Your task to perform on an android device: Show me productivity apps on the Play Store Image 0: 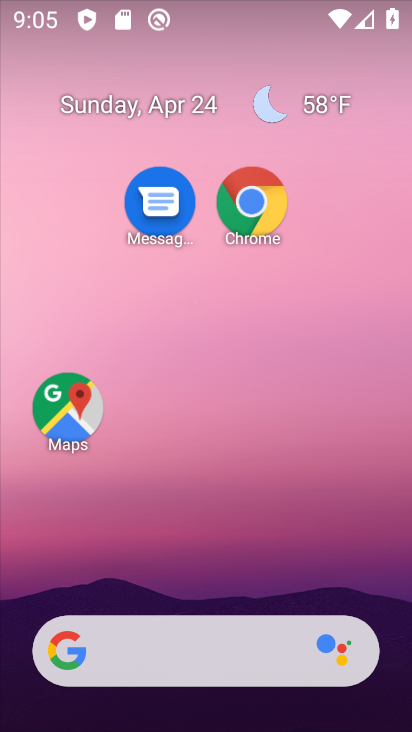
Step 0: drag from (212, 727) to (211, 64)
Your task to perform on an android device: Show me productivity apps on the Play Store Image 1: 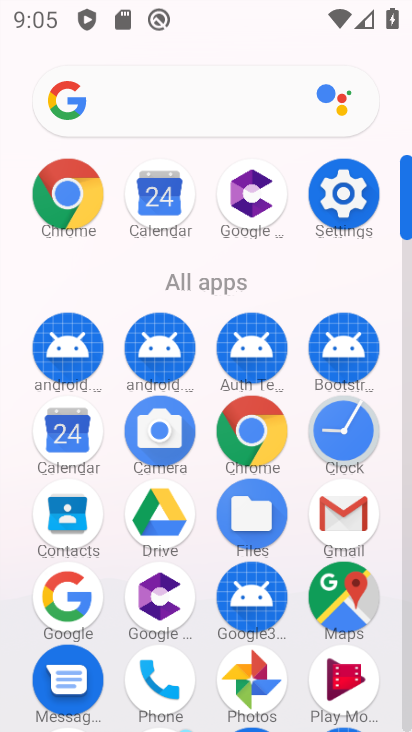
Step 1: drag from (110, 673) to (106, 334)
Your task to perform on an android device: Show me productivity apps on the Play Store Image 2: 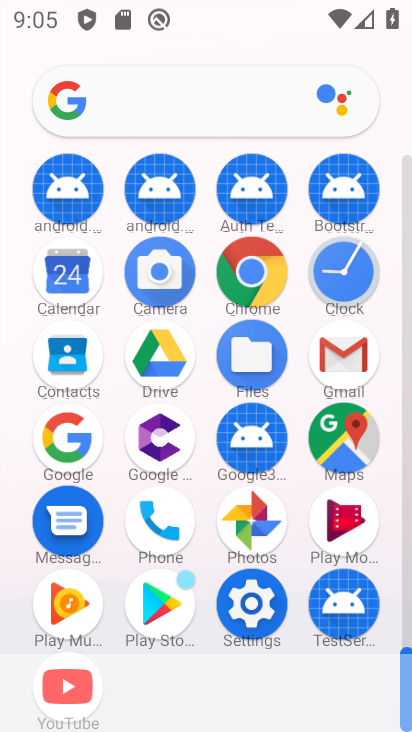
Step 2: click (156, 611)
Your task to perform on an android device: Show me productivity apps on the Play Store Image 3: 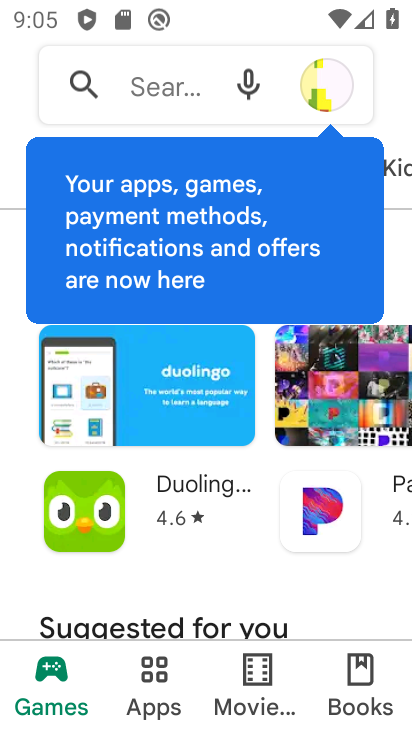
Step 3: click (155, 675)
Your task to perform on an android device: Show me productivity apps on the Play Store Image 4: 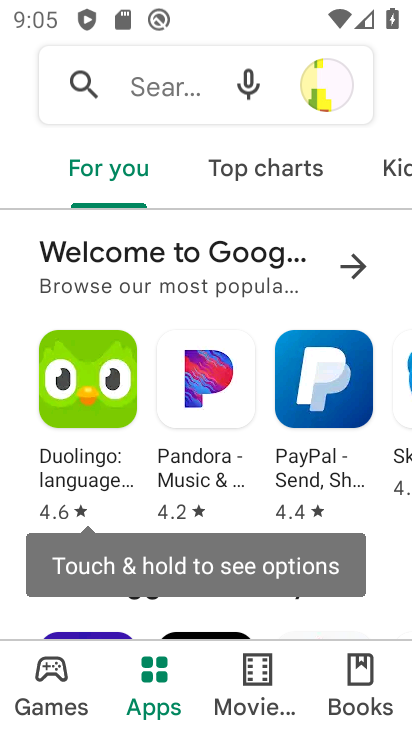
Step 4: drag from (319, 171) to (1, 175)
Your task to perform on an android device: Show me productivity apps on the Play Store Image 5: 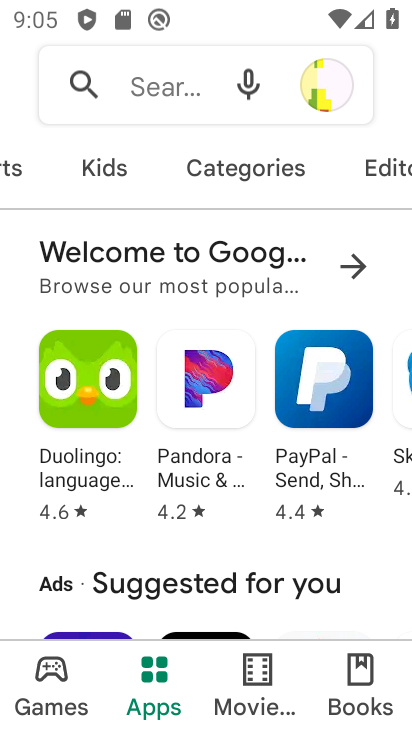
Step 5: click (246, 168)
Your task to perform on an android device: Show me productivity apps on the Play Store Image 6: 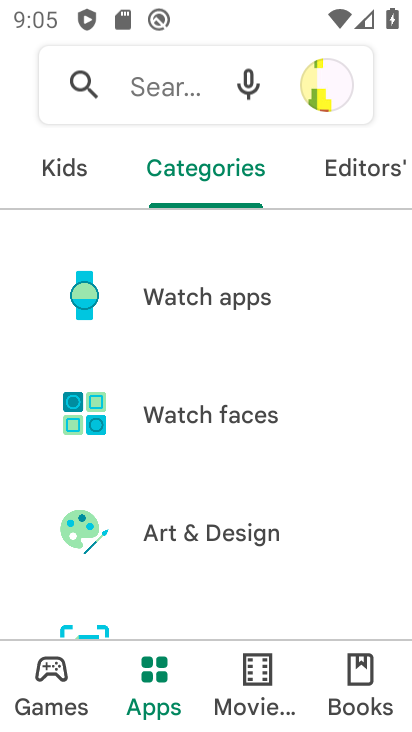
Step 6: drag from (230, 573) to (212, 265)
Your task to perform on an android device: Show me productivity apps on the Play Store Image 7: 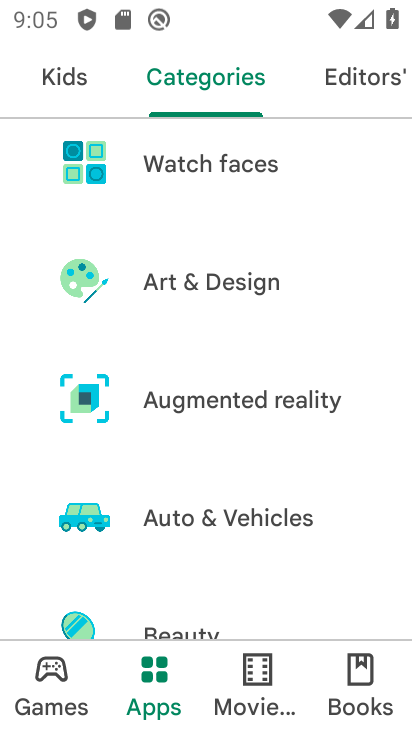
Step 7: drag from (243, 606) to (226, 293)
Your task to perform on an android device: Show me productivity apps on the Play Store Image 8: 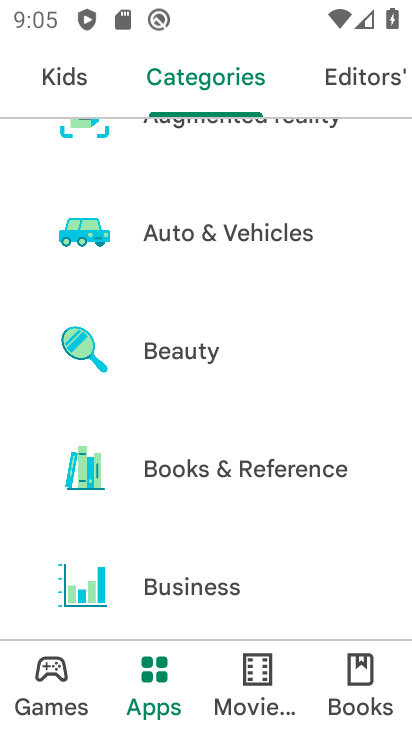
Step 8: drag from (227, 601) to (212, 115)
Your task to perform on an android device: Show me productivity apps on the Play Store Image 9: 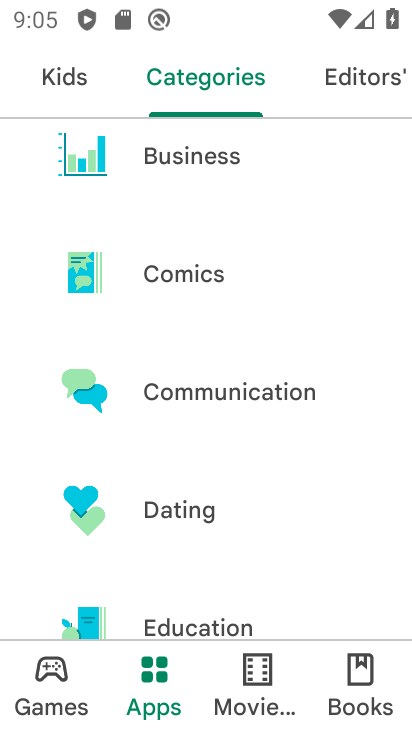
Step 9: drag from (233, 615) to (216, 216)
Your task to perform on an android device: Show me productivity apps on the Play Store Image 10: 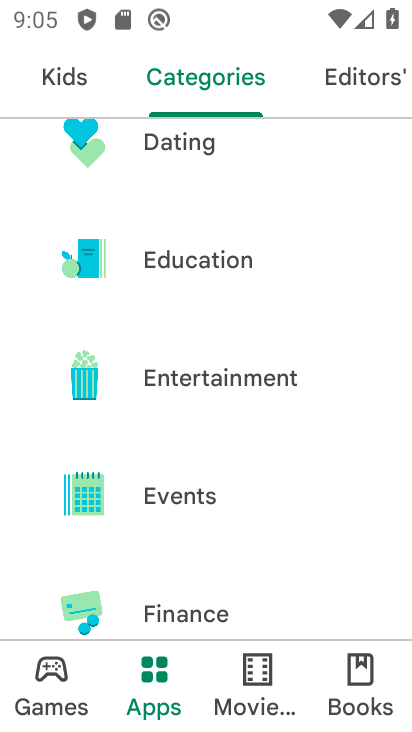
Step 10: drag from (213, 596) to (195, 179)
Your task to perform on an android device: Show me productivity apps on the Play Store Image 11: 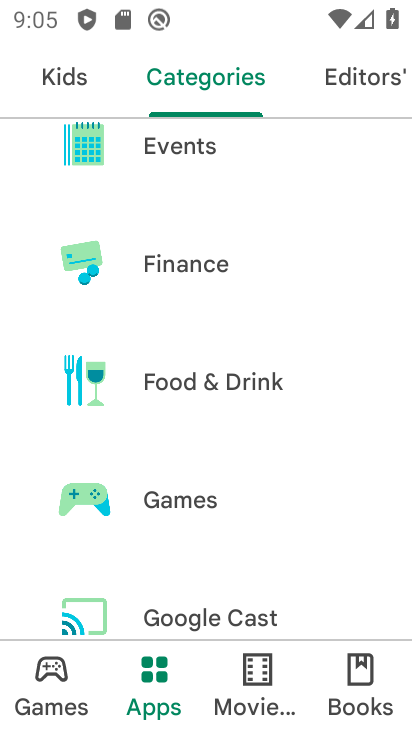
Step 11: drag from (206, 618) to (210, 205)
Your task to perform on an android device: Show me productivity apps on the Play Store Image 12: 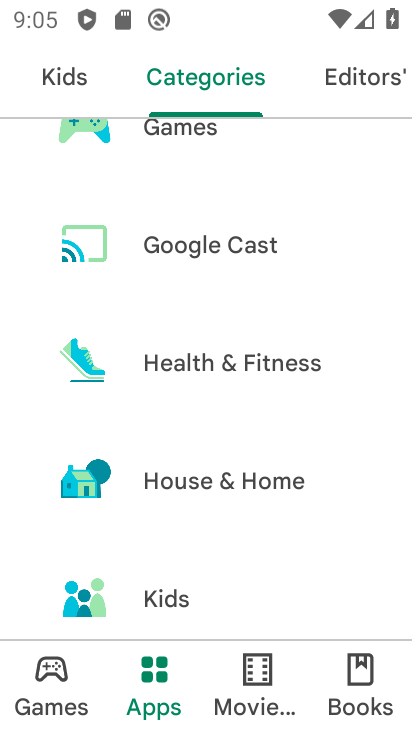
Step 12: drag from (227, 620) to (212, 210)
Your task to perform on an android device: Show me productivity apps on the Play Store Image 13: 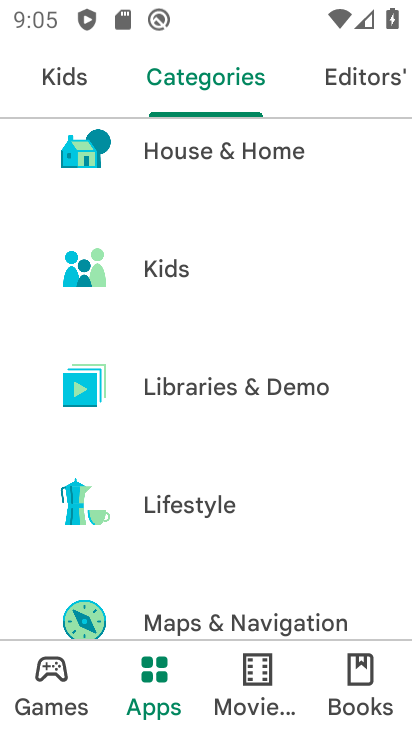
Step 13: drag from (200, 612) to (179, 210)
Your task to perform on an android device: Show me productivity apps on the Play Store Image 14: 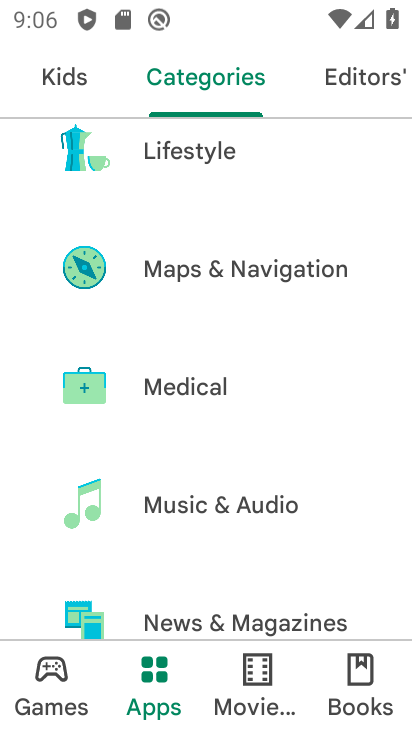
Step 14: drag from (206, 619) to (167, 207)
Your task to perform on an android device: Show me productivity apps on the Play Store Image 15: 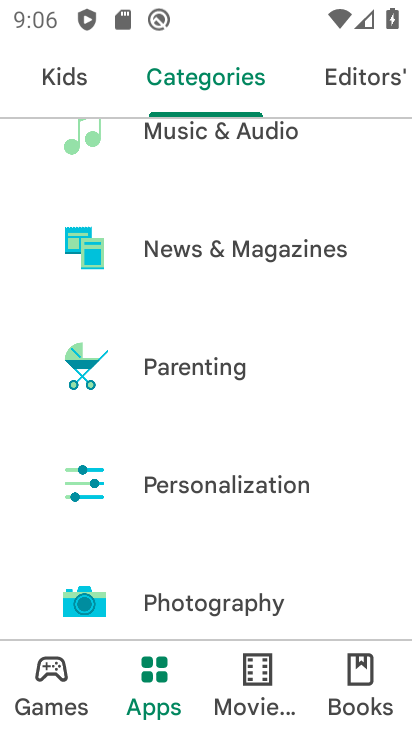
Step 15: drag from (219, 622) to (199, 242)
Your task to perform on an android device: Show me productivity apps on the Play Store Image 16: 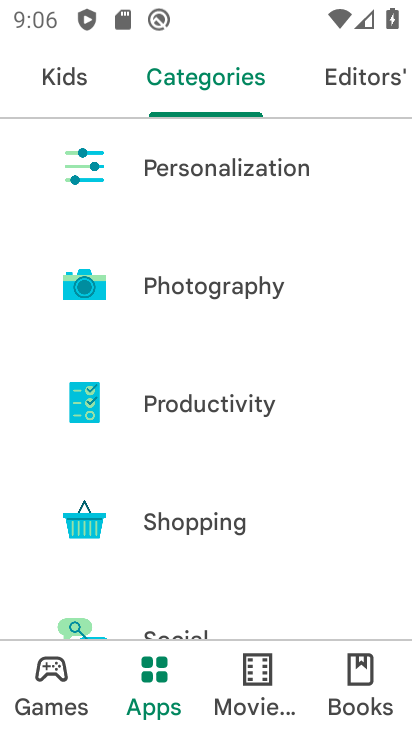
Step 16: click (187, 397)
Your task to perform on an android device: Show me productivity apps on the Play Store Image 17: 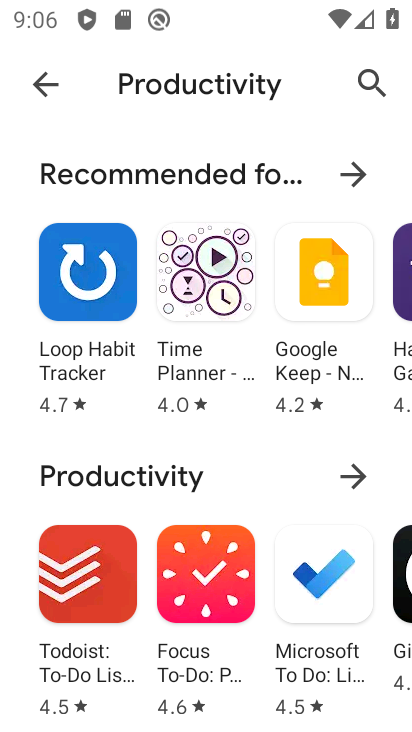
Step 17: task complete